Your task to perform on an android device: turn off notifications in google photos Image 0: 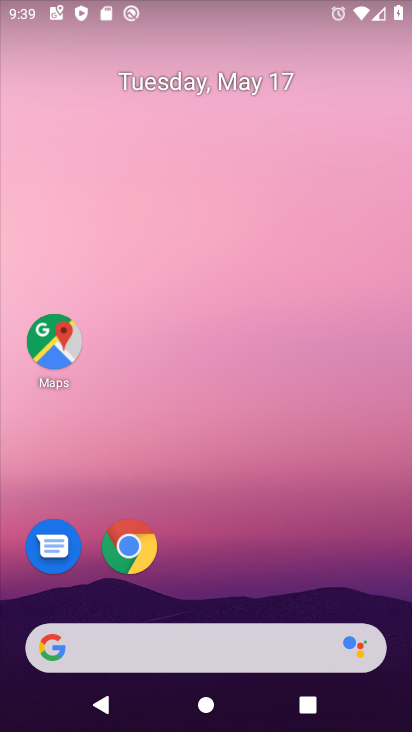
Step 0: drag from (282, 616) to (272, 99)
Your task to perform on an android device: turn off notifications in google photos Image 1: 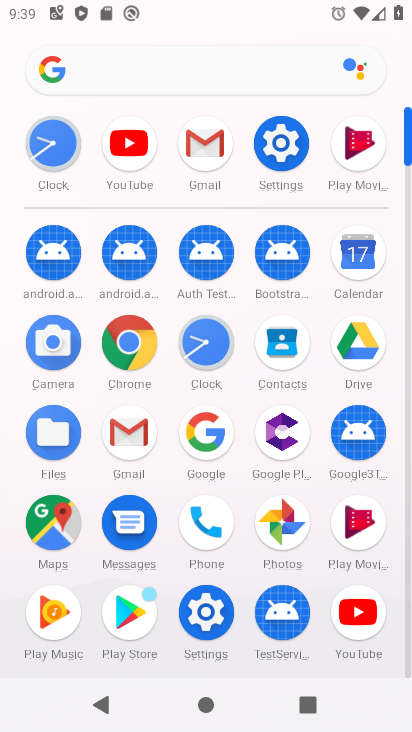
Step 1: click (286, 532)
Your task to perform on an android device: turn off notifications in google photos Image 2: 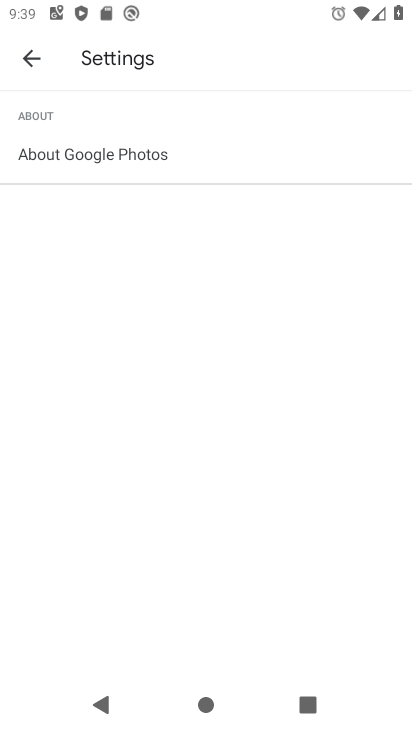
Step 2: click (27, 62)
Your task to perform on an android device: turn off notifications in google photos Image 3: 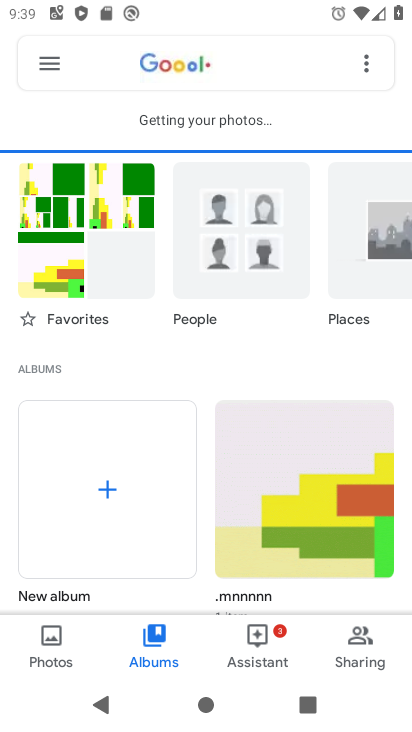
Step 3: click (59, 67)
Your task to perform on an android device: turn off notifications in google photos Image 4: 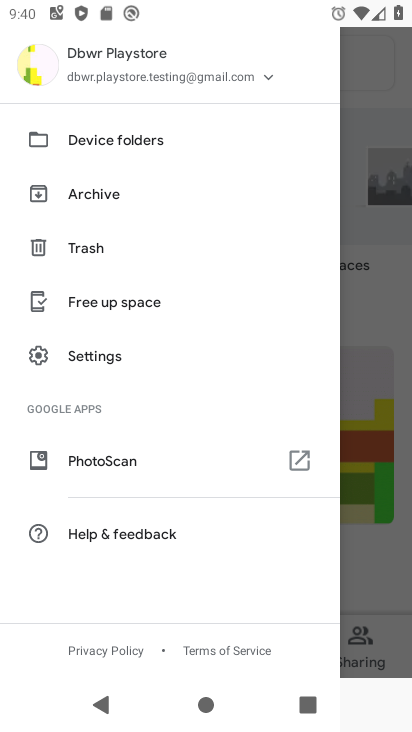
Step 4: click (119, 353)
Your task to perform on an android device: turn off notifications in google photos Image 5: 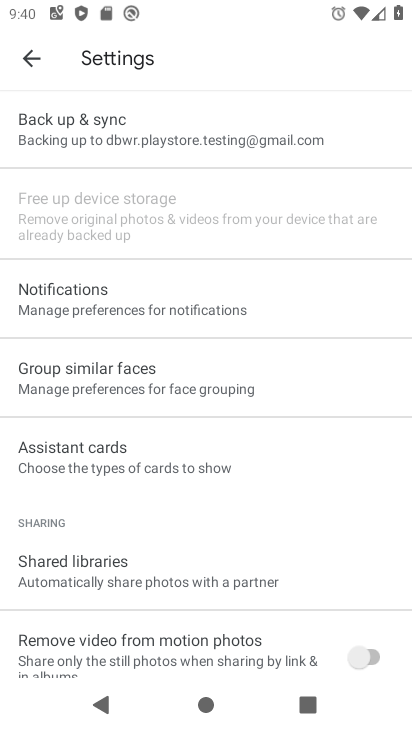
Step 5: click (125, 313)
Your task to perform on an android device: turn off notifications in google photos Image 6: 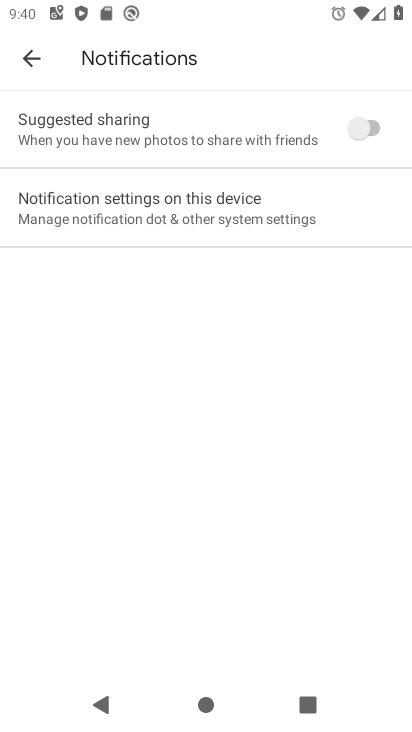
Step 6: click (204, 209)
Your task to perform on an android device: turn off notifications in google photos Image 7: 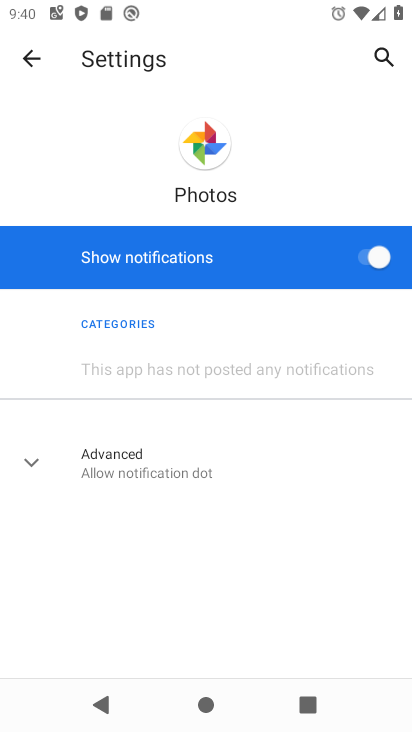
Step 7: click (344, 253)
Your task to perform on an android device: turn off notifications in google photos Image 8: 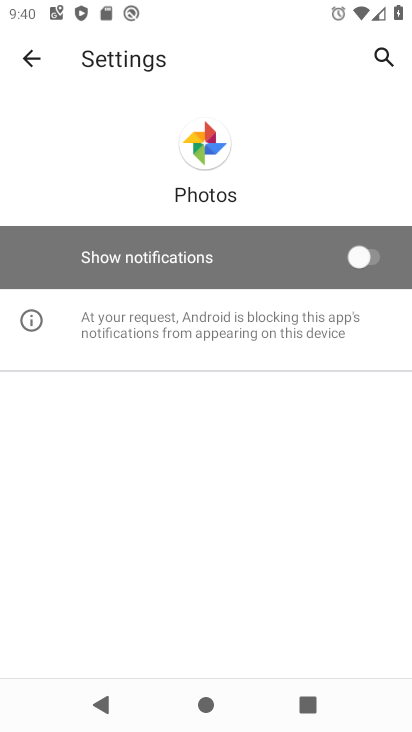
Step 8: task complete